Your task to perform on an android device: Open privacy settings Image 0: 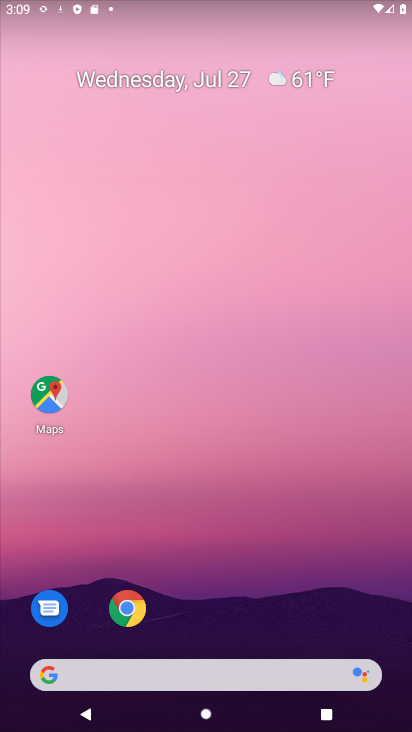
Step 0: task complete